Your task to perform on an android device: Open notification settings Image 0: 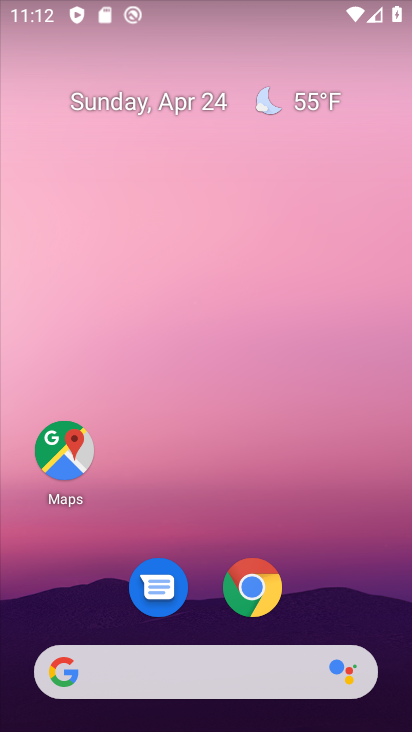
Step 0: drag from (302, 376) to (254, 9)
Your task to perform on an android device: Open notification settings Image 1: 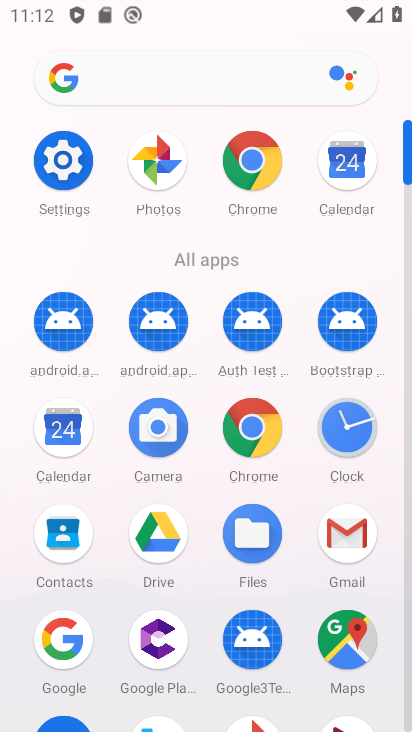
Step 1: click (68, 157)
Your task to perform on an android device: Open notification settings Image 2: 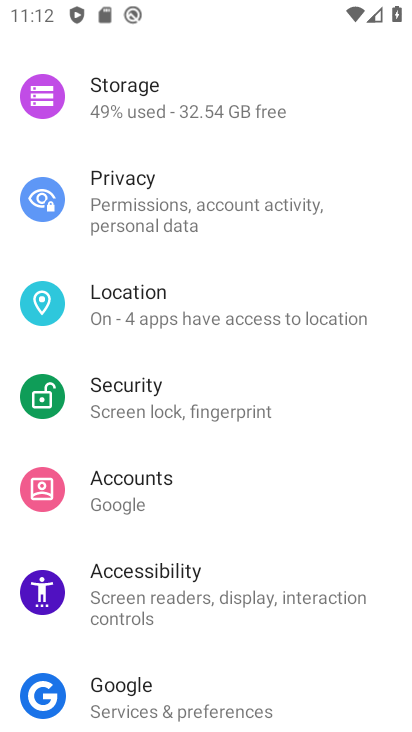
Step 2: drag from (201, 224) to (249, 638)
Your task to perform on an android device: Open notification settings Image 3: 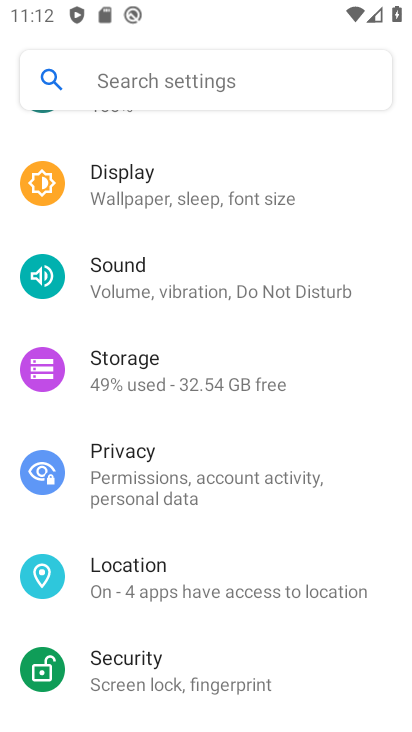
Step 3: drag from (318, 229) to (312, 700)
Your task to perform on an android device: Open notification settings Image 4: 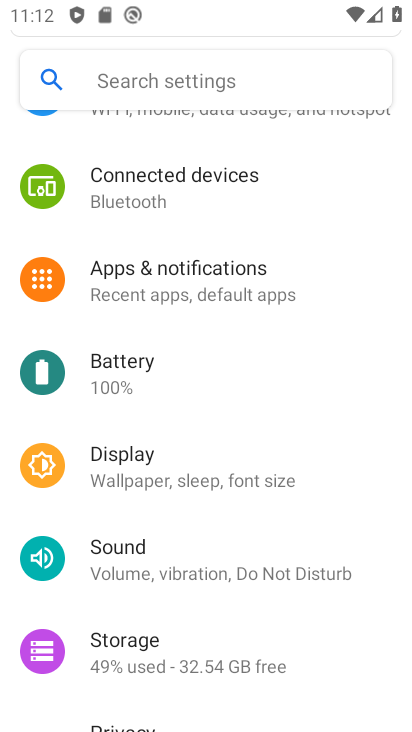
Step 4: drag from (334, 257) to (364, 641)
Your task to perform on an android device: Open notification settings Image 5: 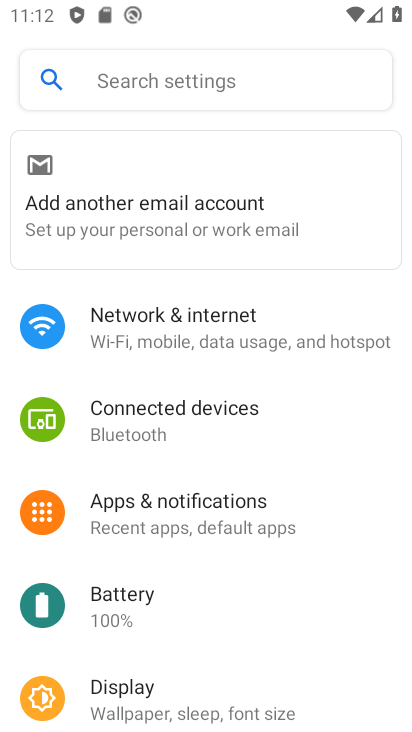
Step 5: drag from (203, 388) to (274, 670)
Your task to perform on an android device: Open notification settings Image 6: 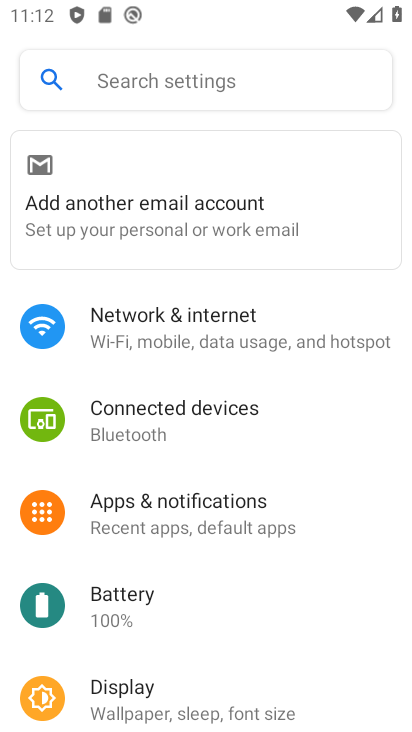
Step 6: click (228, 506)
Your task to perform on an android device: Open notification settings Image 7: 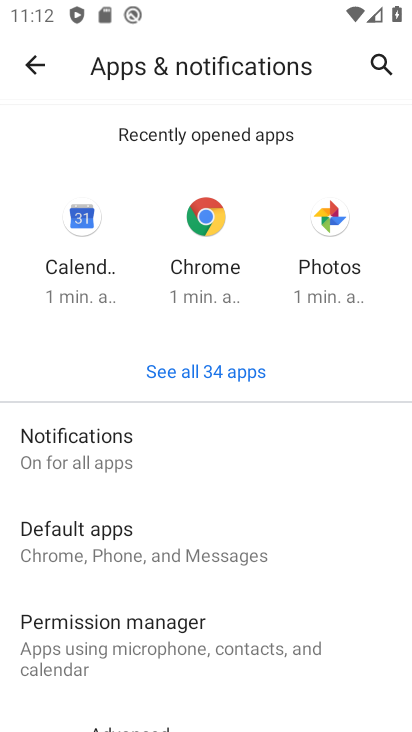
Step 7: click (88, 451)
Your task to perform on an android device: Open notification settings Image 8: 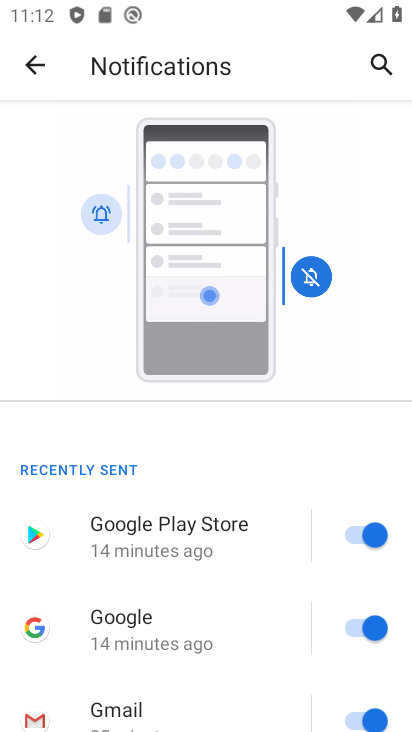
Step 8: task complete